Your task to perform on an android device: set the stopwatch Image 0: 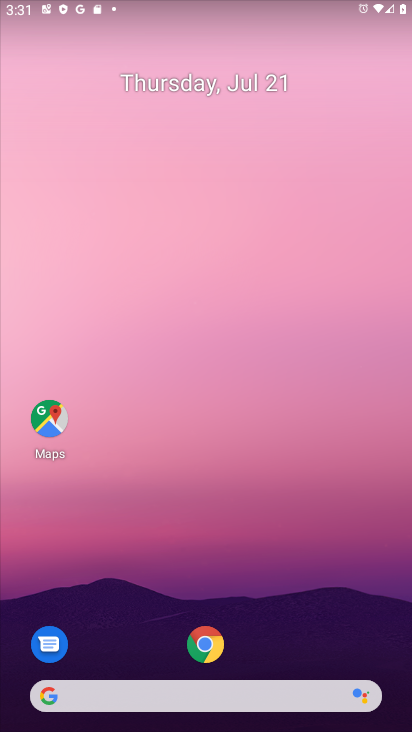
Step 0: press home button
Your task to perform on an android device: set the stopwatch Image 1: 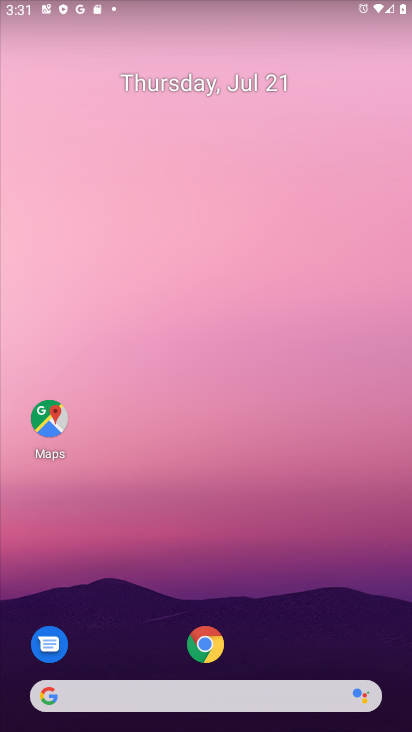
Step 1: drag from (285, 520) to (319, 115)
Your task to perform on an android device: set the stopwatch Image 2: 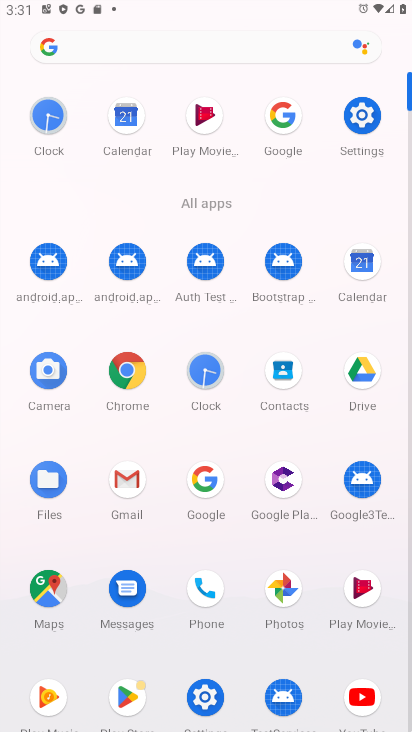
Step 2: click (202, 375)
Your task to perform on an android device: set the stopwatch Image 3: 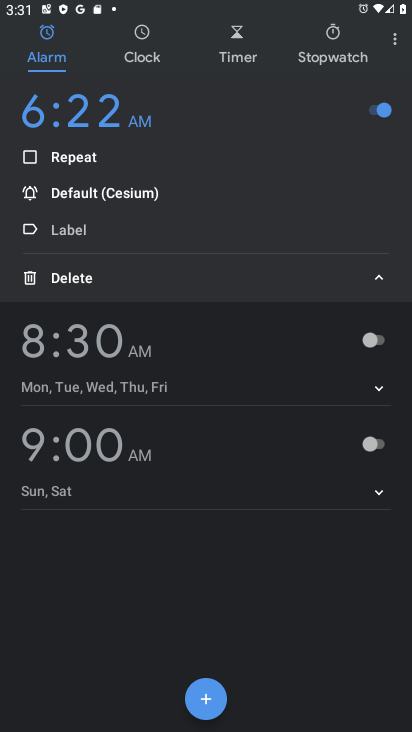
Step 3: click (321, 41)
Your task to perform on an android device: set the stopwatch Image 4: 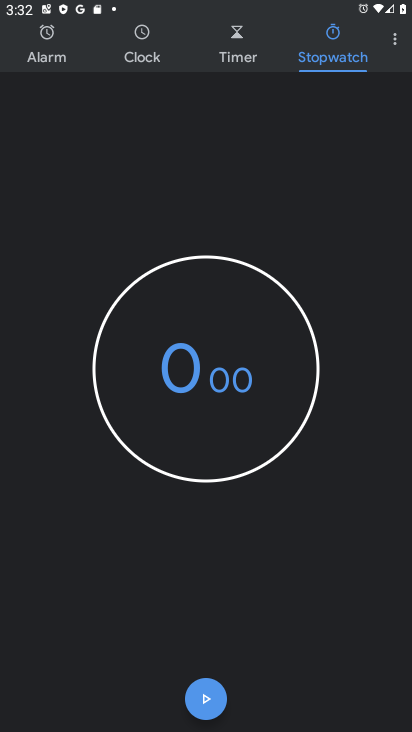
Step 4: click (214, 692)
Your task to perform on an android device: set the stopwatch Image 5: 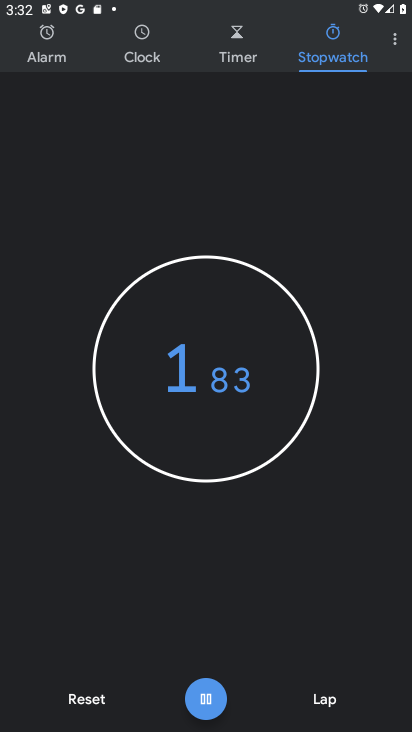
Step 5: click (214, 692)
Your task to perform on an android device: set the stopwatch Image 6: 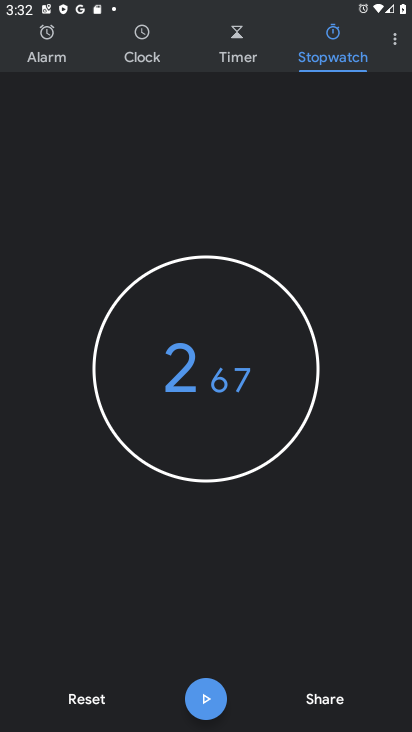
Step 6: task complete